Your task to perform on an android device: Open CNN.com Image 0: 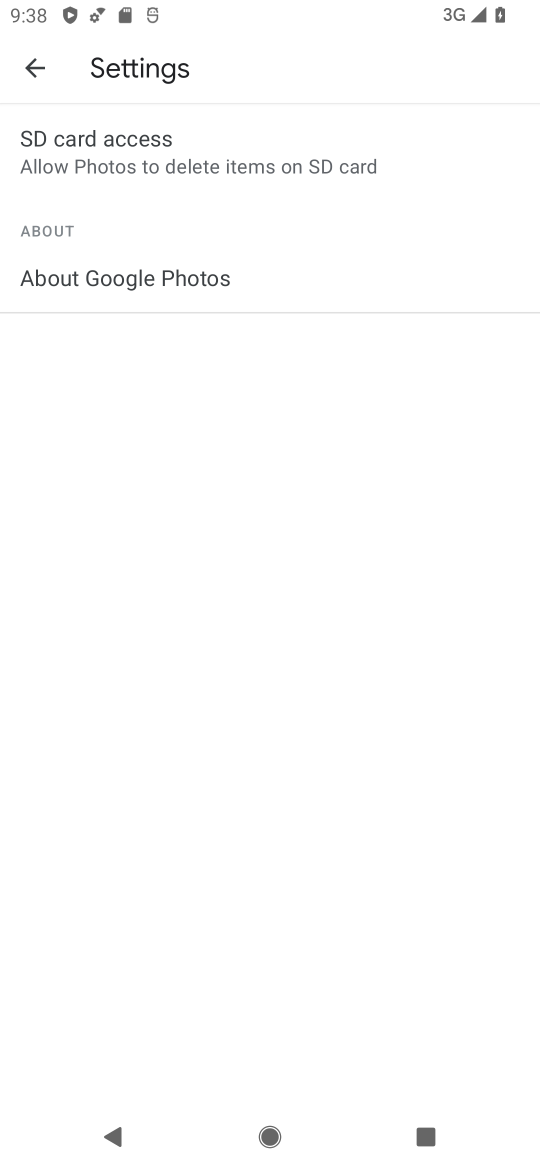
Step 0: press home button
Your task to perform on an android device: Open CNN.com Image 1: 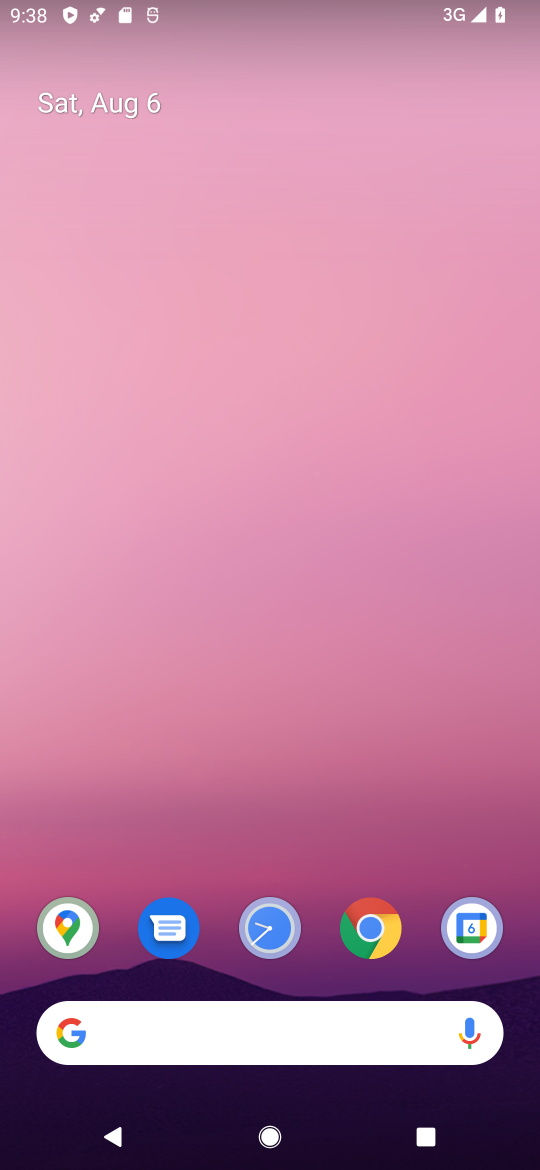
Step 1: click (373, 925)
Your task to perform on an android device: Open CNN.com Image 2: 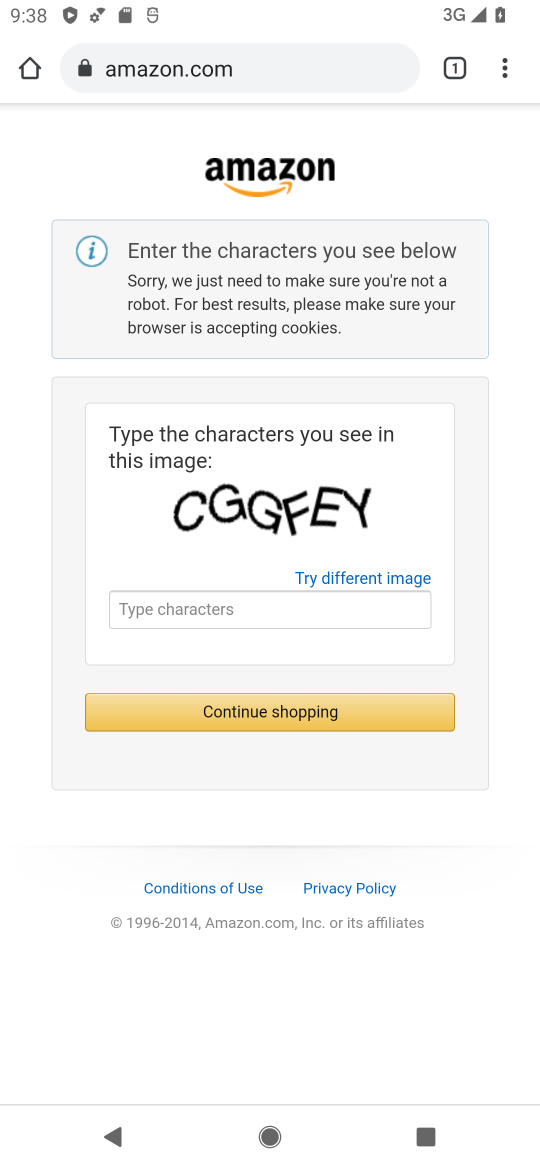
Step 2: click (504, 66)
Your task to perform on an android device: Open CNN.com Image 3: 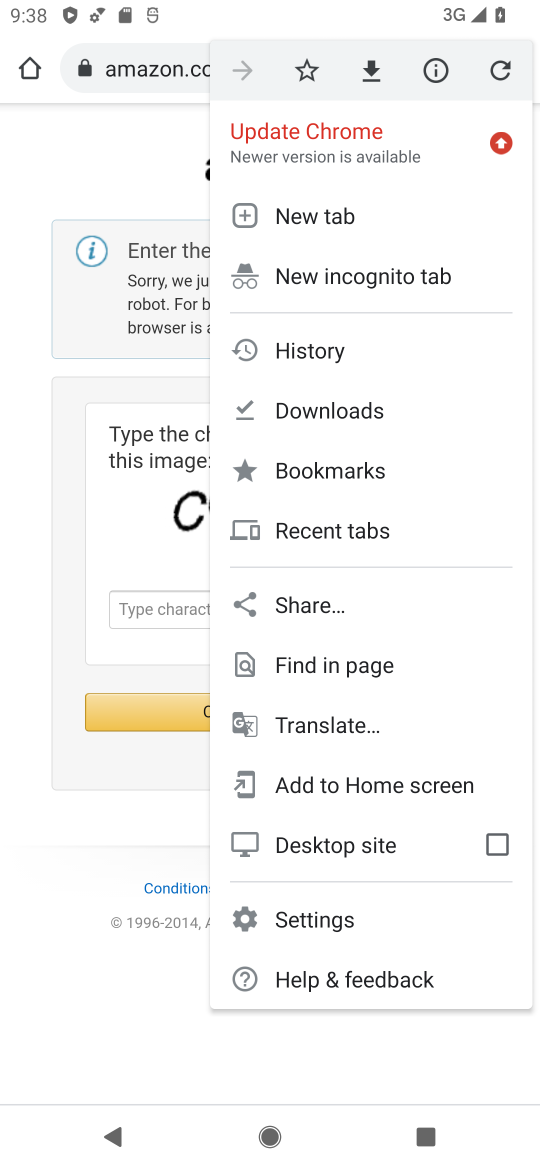
Step 3: click (328, 222)
Your task to perform on an android device: Open CNN.com Image 4: 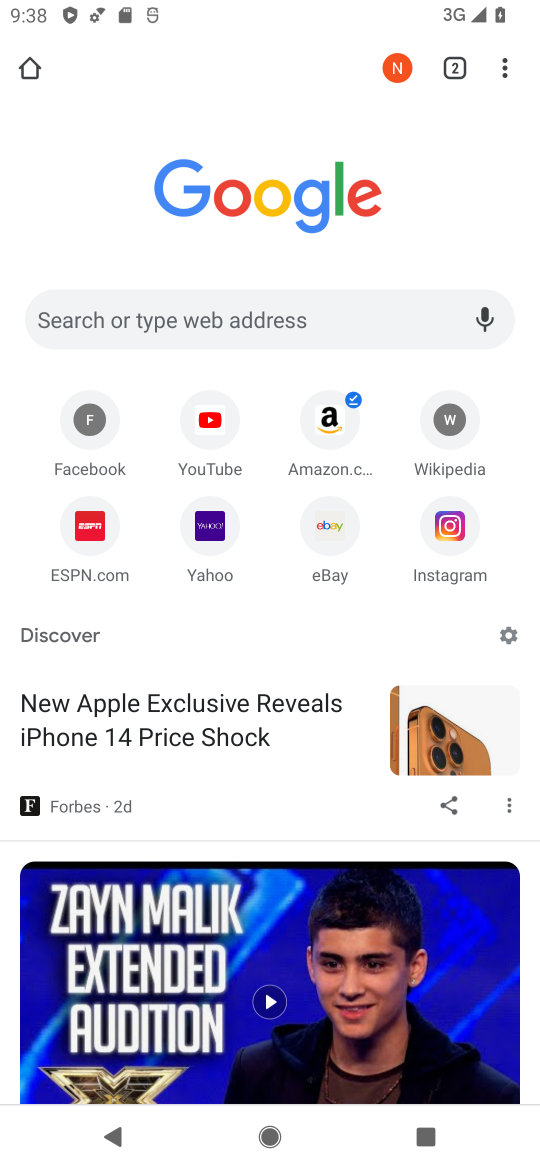
Step 4: click (175, 313)
Your task to perform on an android device: Open CNN.com Image 5: 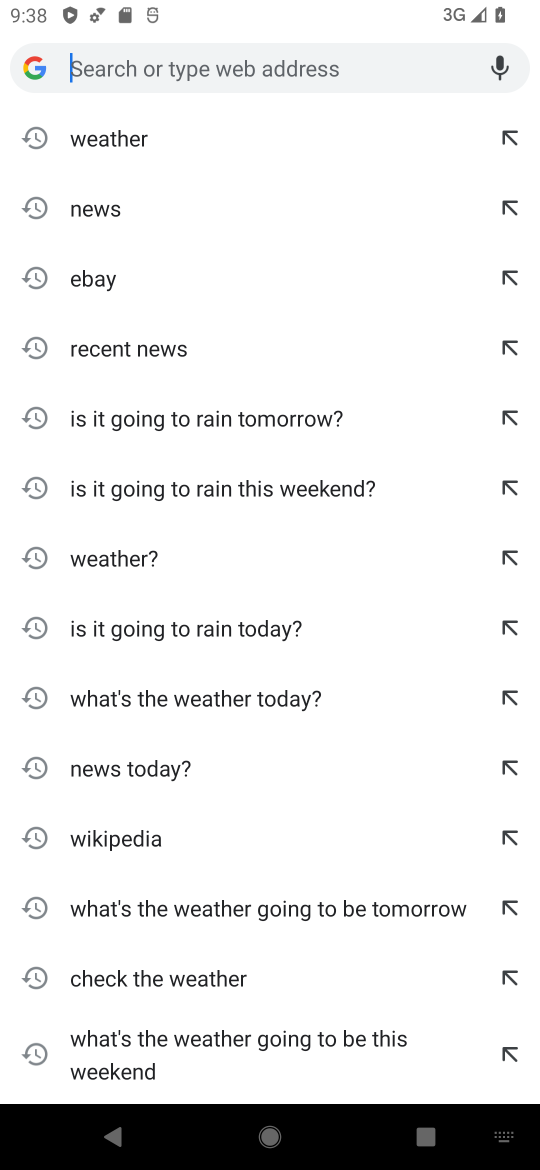
Step 5: type "cnn.com"
Your task to perform on an android device: Open CNN.com Image 6: 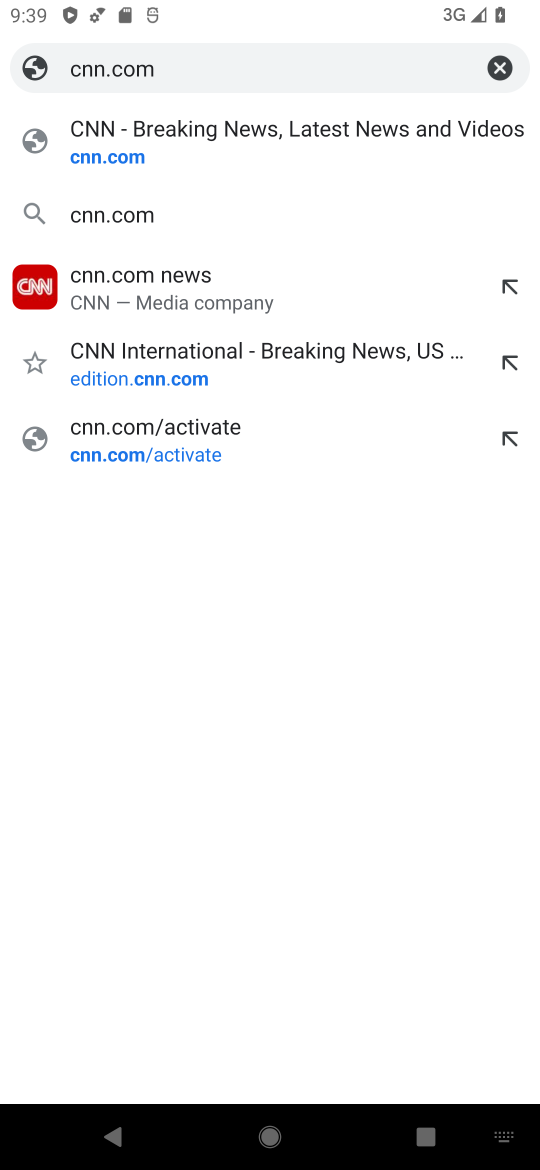
Step 6: click (144, 134)
Your task to perform on an android device: Open CNN.com Image 7: 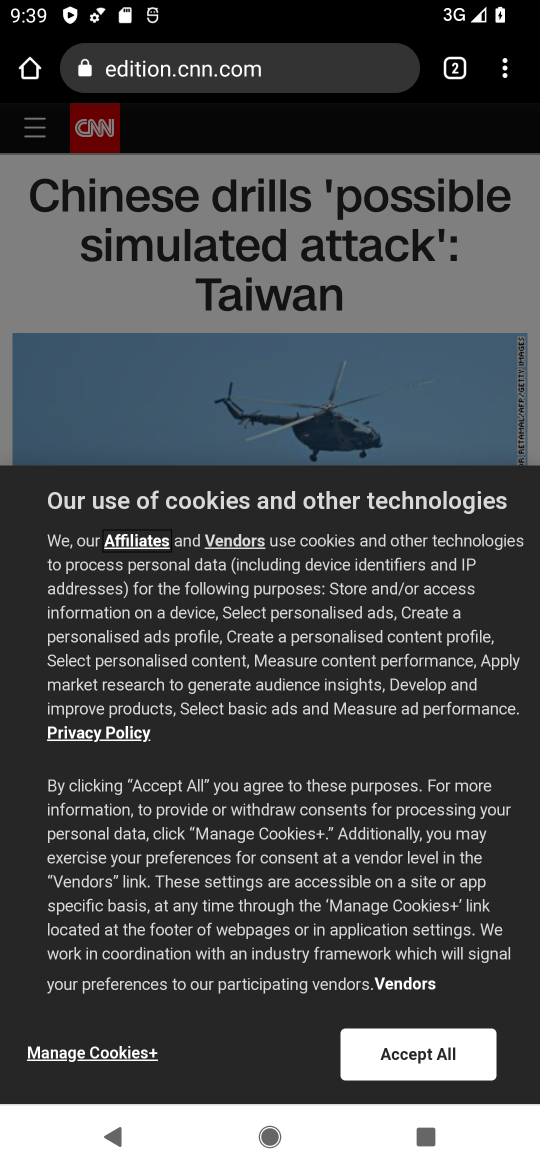
Step 7: click (410, 1045)
Your task to perform on an android device: Open CNN.com Image 8: 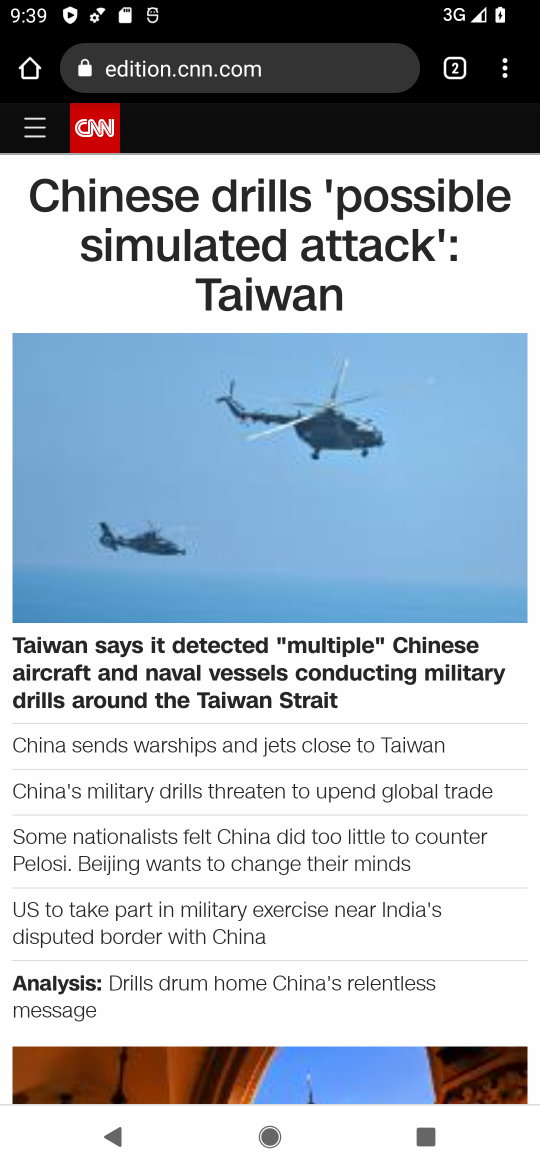
Step 8: task complete